Your task to perform on an android device: open a bookmark in the chrome app Image 0: 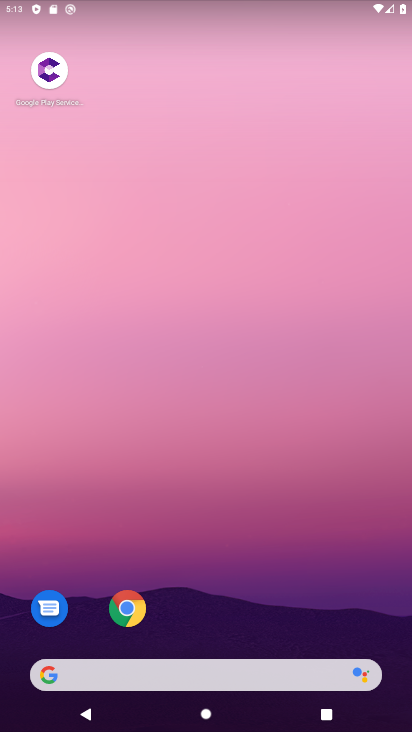
Step 0: click (128, 609)
Your task to perform on an android device: open a bookmark in the chrome app Image 1: 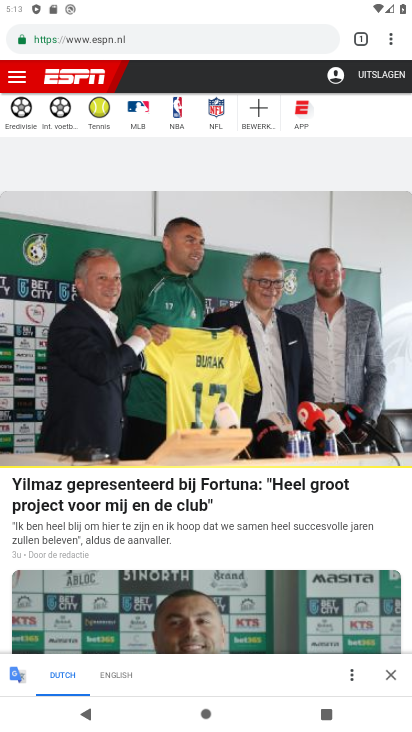
Step 1: click (392, 35)
Your task to perform on an android device: open a bookmark in the chrome app Image 2: 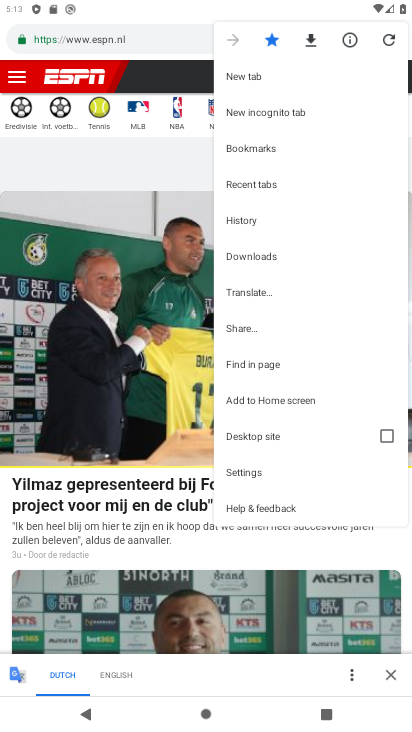
Step 2: click (266, 149)
Your task to perform on an android device: open a bookmark in the chrome app Image 3: 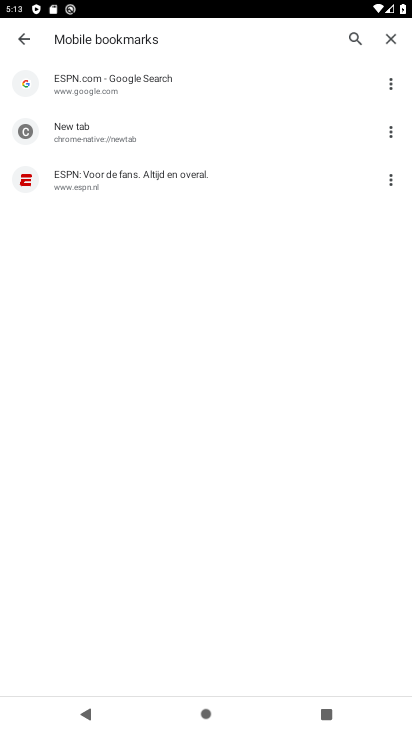
Step 3: task complete